Your task to perform on an android device: What's the weather? Image 0: 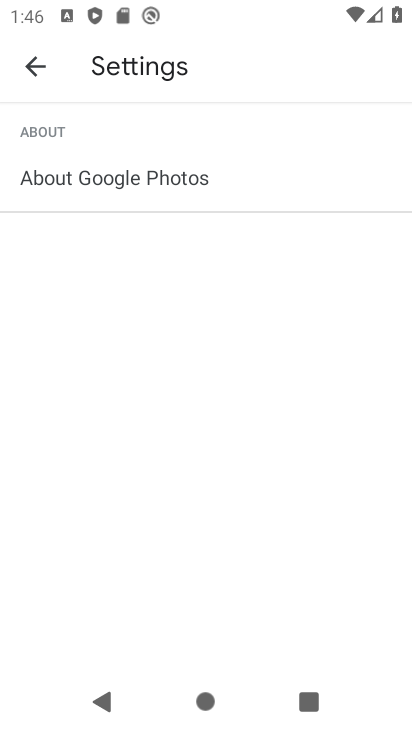
Step 0: press home button
Your task to perform on an android device: What's the weather? Image 1: 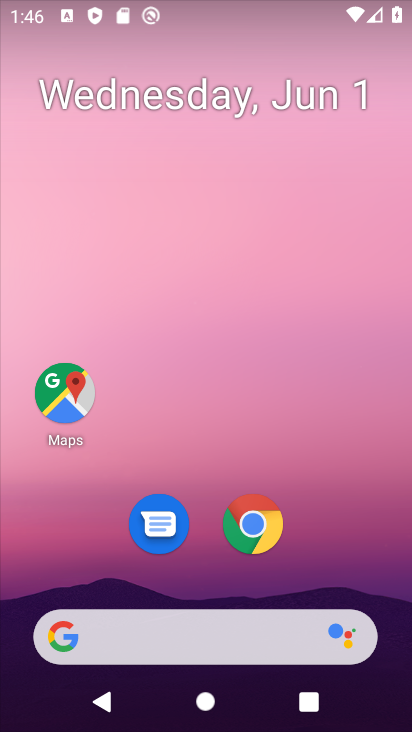
Step 1: click (239, 628)
Your task to perform on an android device: What's the weather? Image 2: 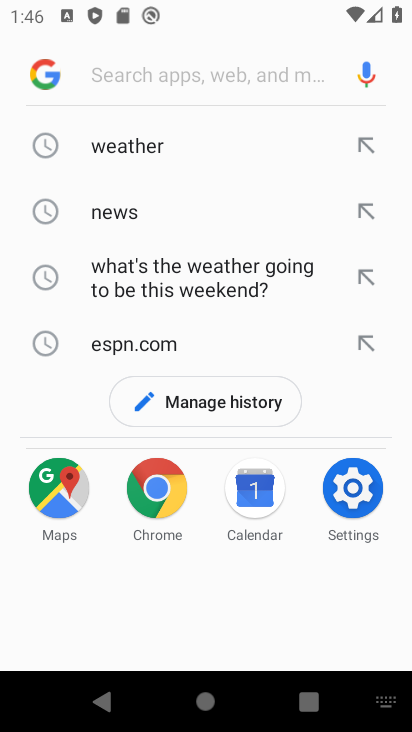
Step 2: click (113, 137)
Your task to perform on an android device: What's the weather? Image 3: 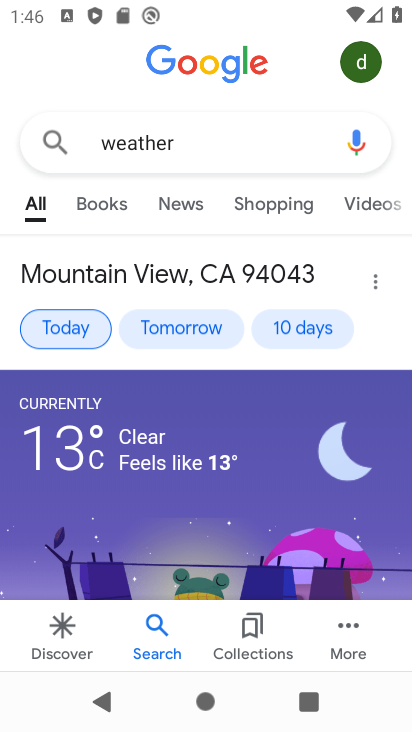
Step 3: click (59, 330)
Your task to perform on an android device: What's the weather? Image 4: 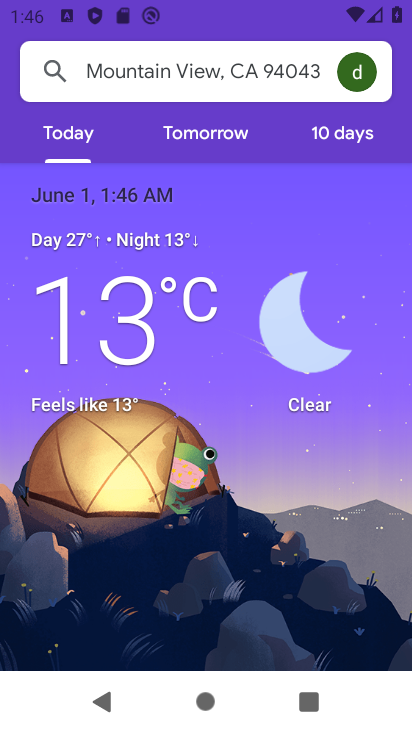
Step 4: task complete